Your task to perform on an android device: What is the speed of a bicycle? Image 0: 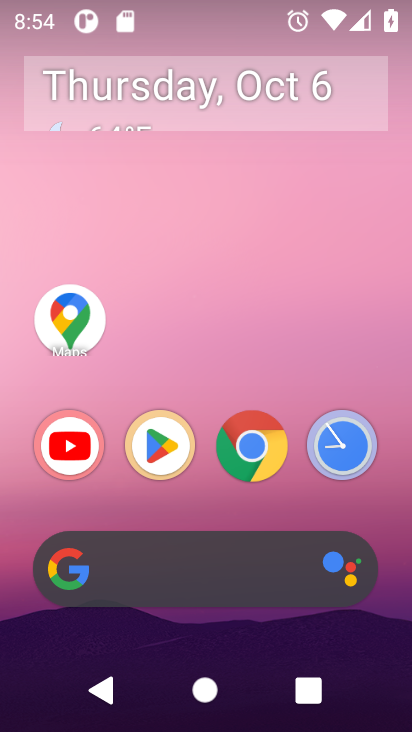
Step 0: click (206, 563)
Your task to perform on an android device: What is the speed of a bicycle? Image 1: 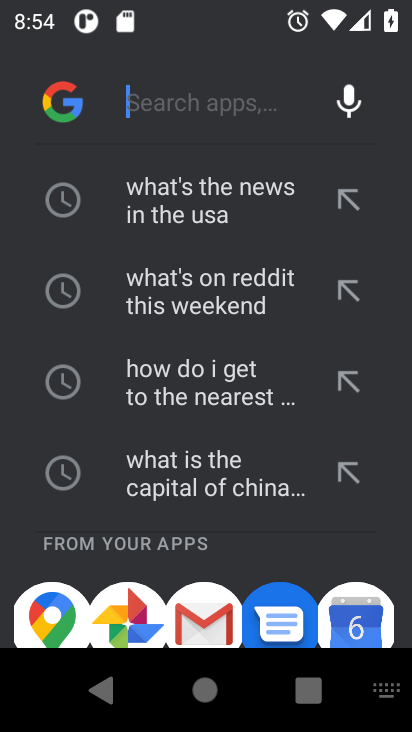
Step 1: type "What is the speed of a bicycle?"
Your task to perform on an android device: What is the speed of a bicycle? Image 2: 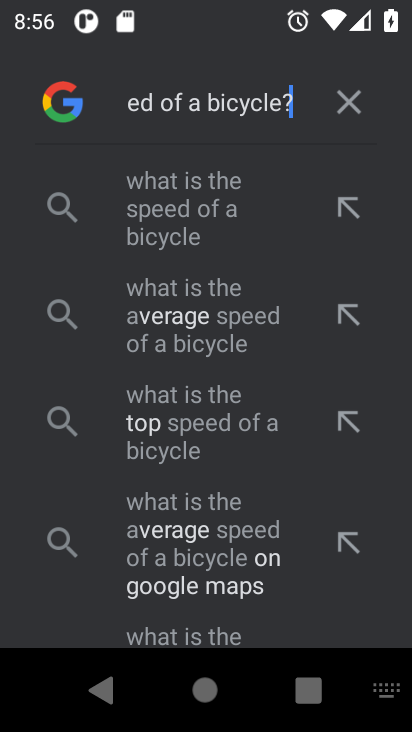
Step 2: click (176, 177)
Your task to perform on an android device: What is the speed of a bicycle? Image 3: 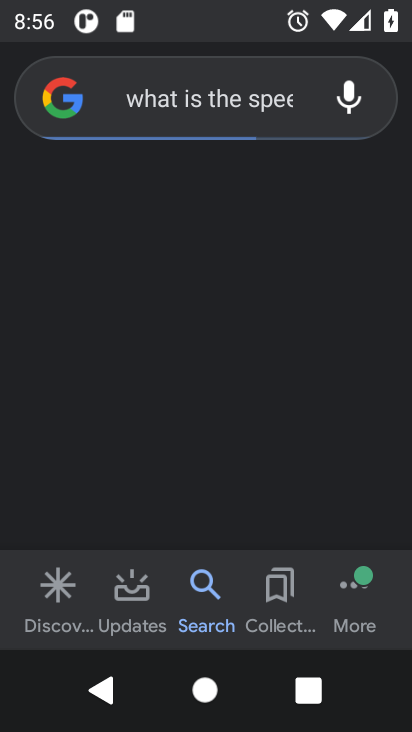
Step 3: task complete